Your task to perform on an android device: change the clock style Image 0: 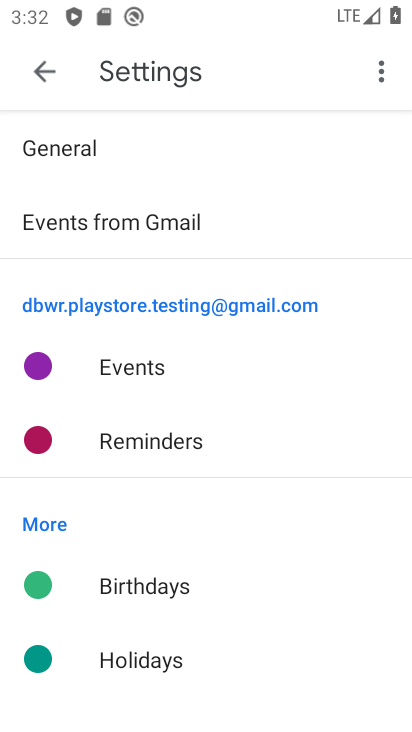
Step 0: press home button
Your task to perform on an android device: change the clock style Image 1: 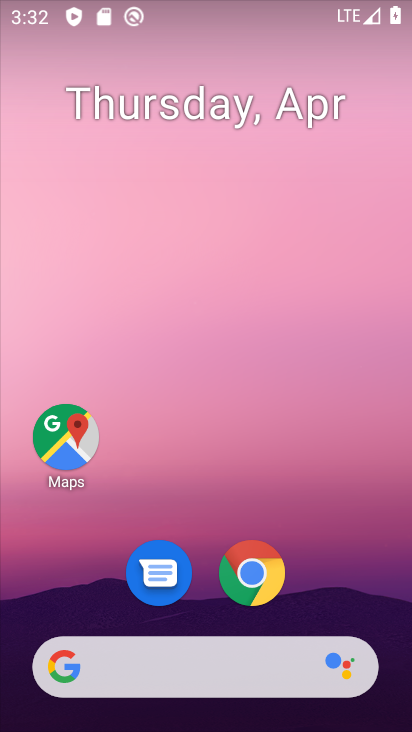
Step 1: drag from (360, 600) to (288, 82)
Your task to perform on an android device: change the clock style Image 2: 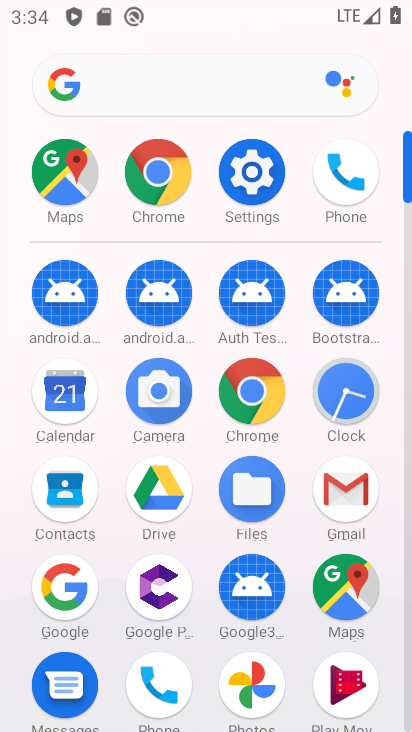
Step 2: click (359, 388)
Your task to perform on an android device: change the clock style Image 3: 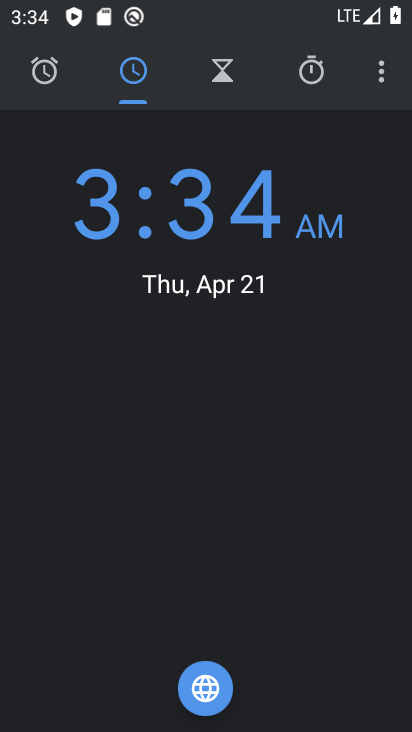
Step 3: click (386, 64)
Your task to perform on an android device: change the clock style Image 4: 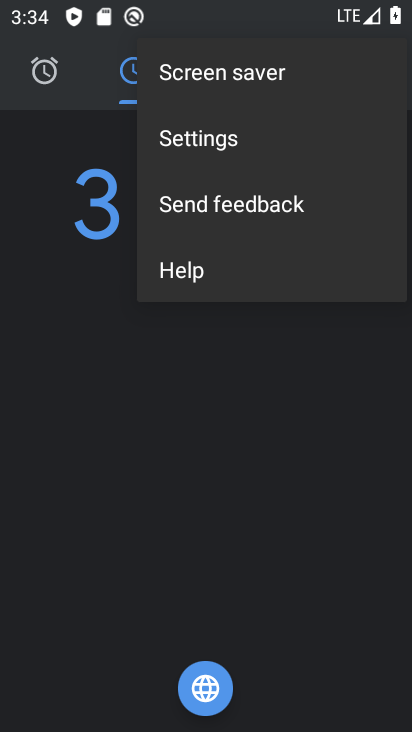
Step 4: click (267, 139)
Your task to perform on an android device: change the clock style Image 5: 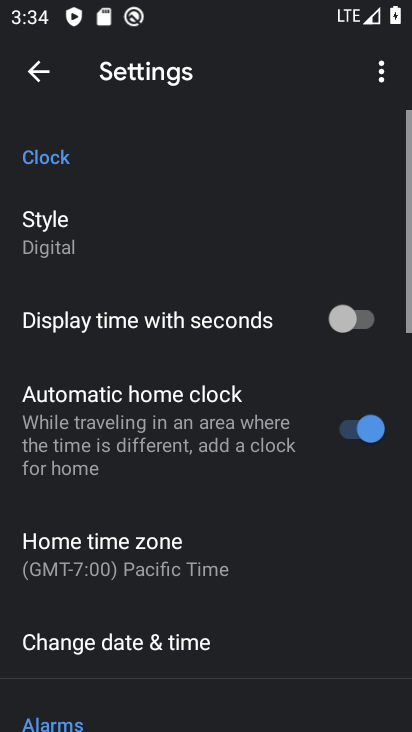
Step 5: click (59, 238)
Your task to perform on an android device: change the clock style Image 6: 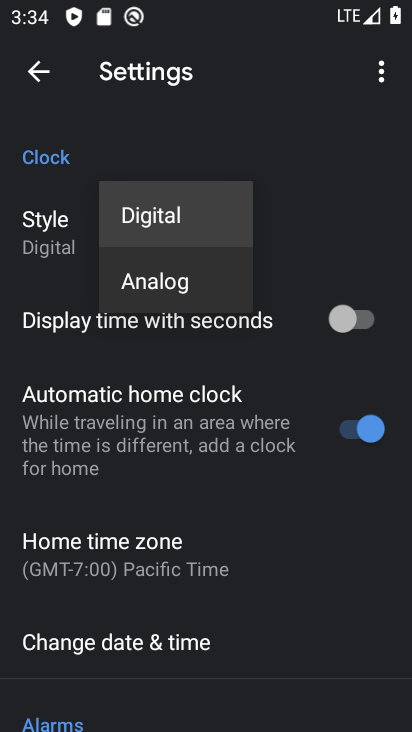
Step 6: click (167, 282)
Your task to perform on an android device: change the clock style Image 7: 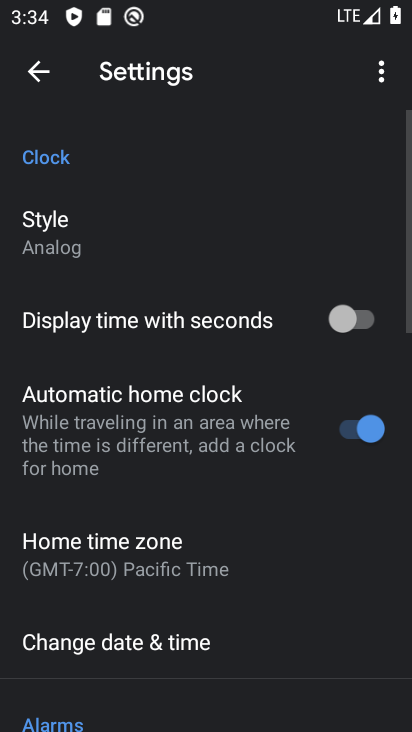
Step 7: task complete